Your task to perform on an android device: turn off location Image 0: 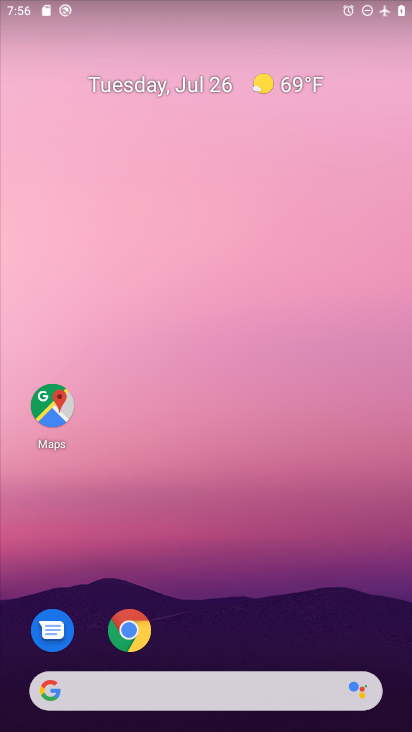
Step 0: drag from (200, 559) to (258, 140)
Your task to perform on an android device: turn off location Image 1: 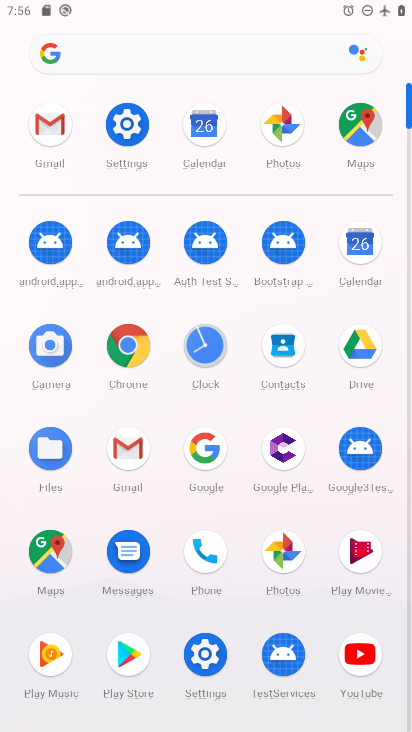
Step 1: click (217, 660)
Your task to perform on an android device: turn off location Image 2: 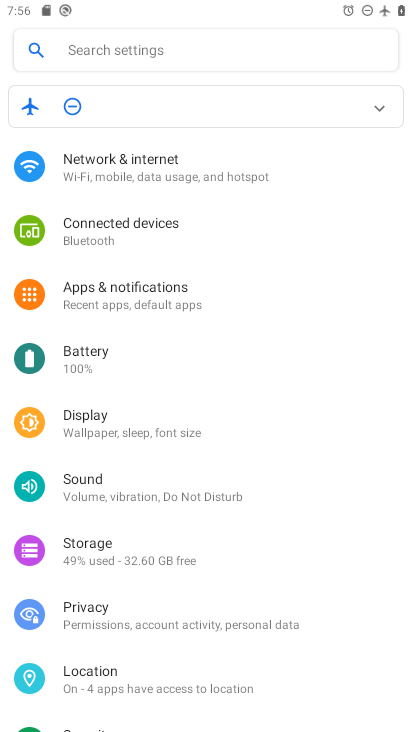
Step 2: click (168, 678)
Your task to perform on an android device: turn off location Image 3: 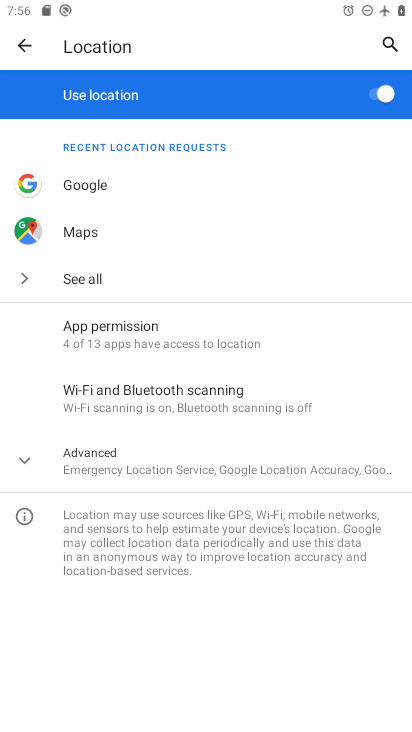
Step 3: click (387, 93)
Your task to perform on an android device: turn off location Image 4: 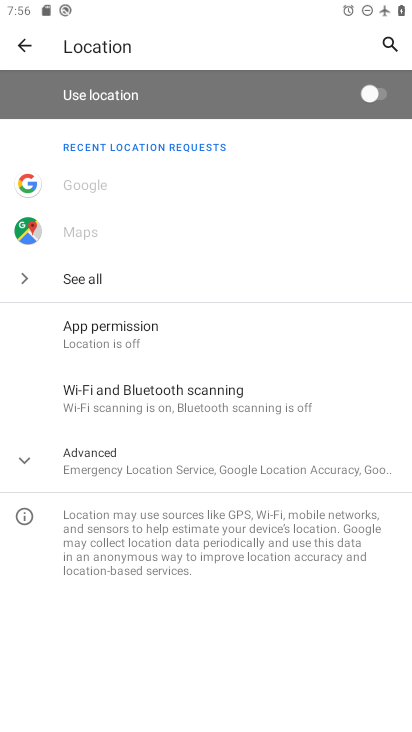
Step 4: task complete